Your task to perform on an android device: check the backup settings in the google photos Image 0: 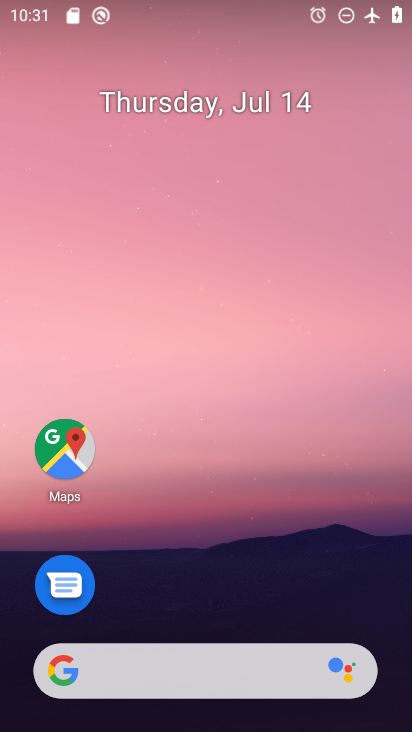
Step 0: drag from (208, 622) to (11, 40)
Your task to perform on an android device: check the backup settings in the google photos Image 1: 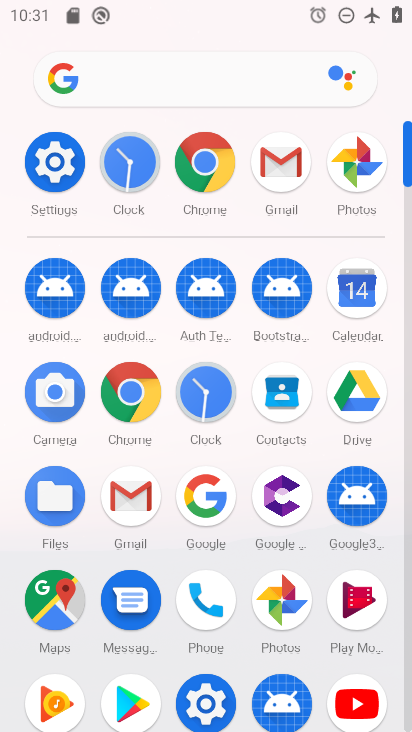
Step 1: click (283, 615)
Your task to perform on an android device: check the backup settings in the google photos Image 2: 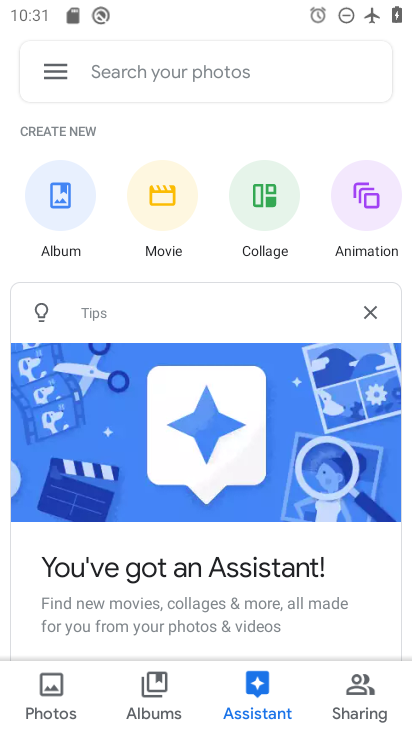
Step 2: click (58, 75)
Your task to perform on an android device: check the backup settings in the google photos Image 3: 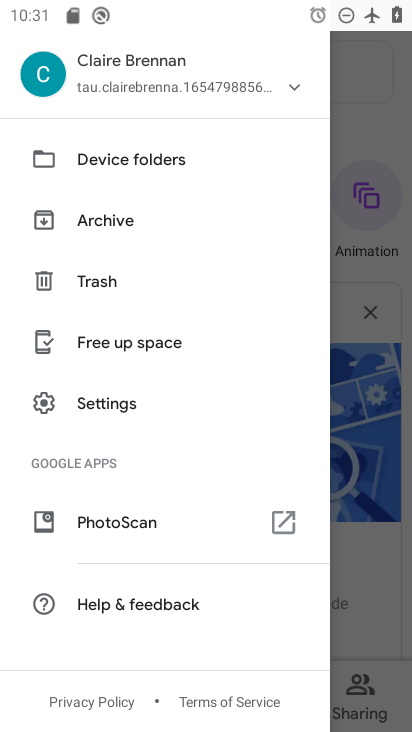
Step 3: click (133, 403)
Your task to perform on an android device: check the backup settings in the google photos Image 4: 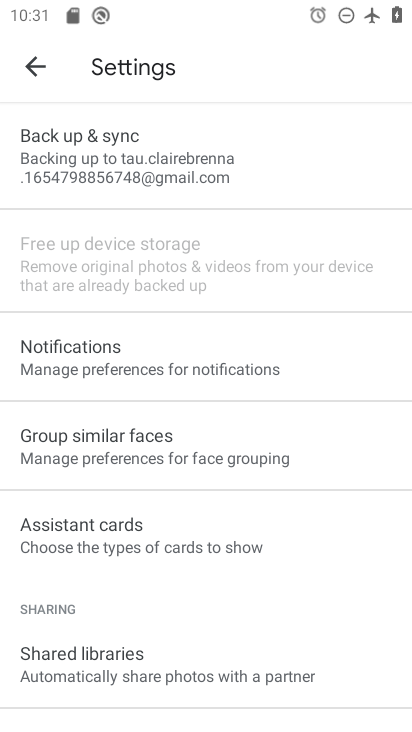
Step 4: click (124, 158)
Your task to perform on an android device: check the backup settings in the google photos Image 5: 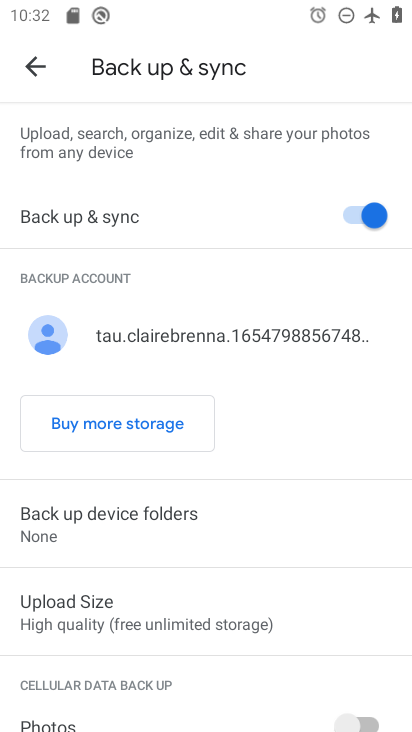
Step 5: task complete